Your task to perform on an android device: toggle notification dots Image 0: 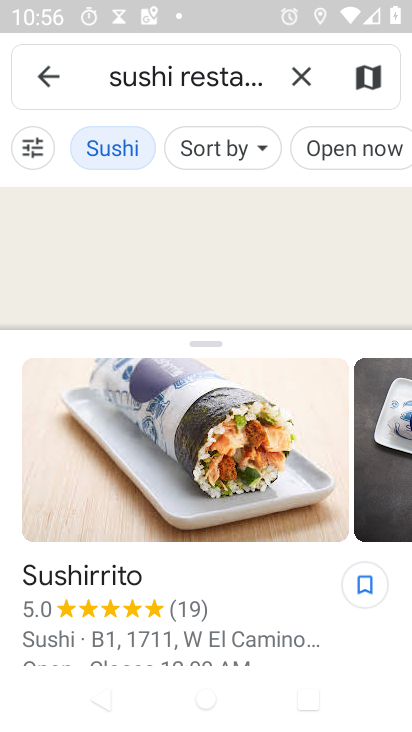
Step 0: press home button
Your task to perform on an android device: toggle notification dots Image 1: 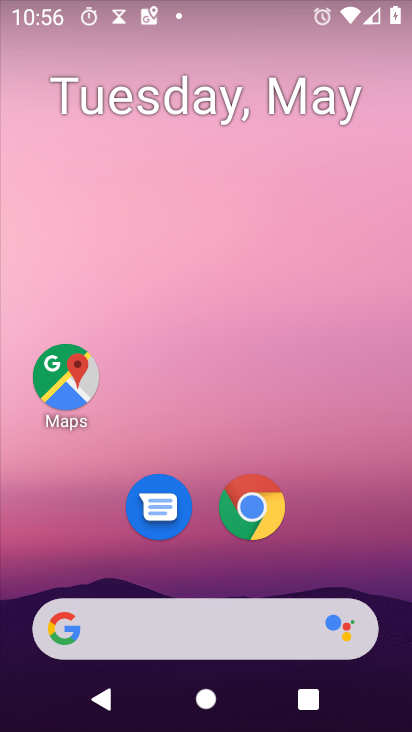
Step 1: drag from (18, 476) to (277, 193)
Your task to perform on an android device: toggle notification dots Image 2: 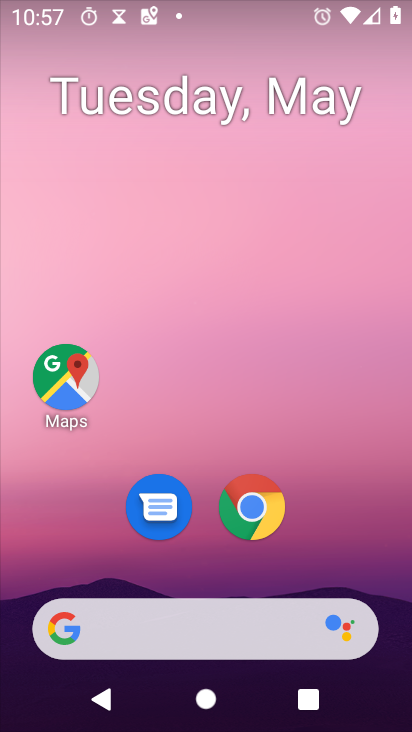
Step 2: drag from (89, 438) to (233, 145)
Your task to perform on an android device: toggle notification dots Image 3: 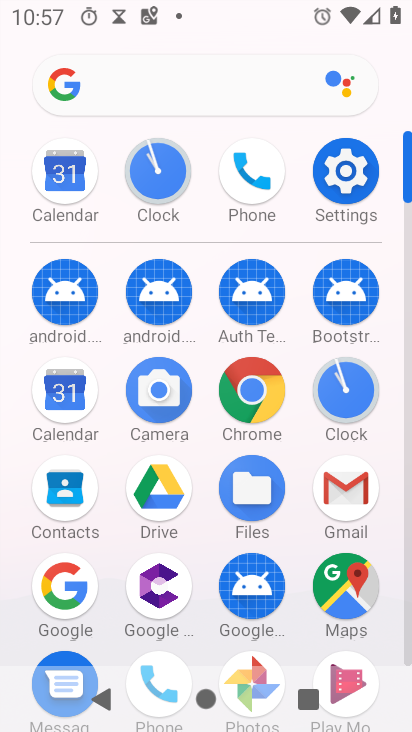
Step 3: click (333, 179)
Your task to perform on an android device: toggle notification dots Image 4: 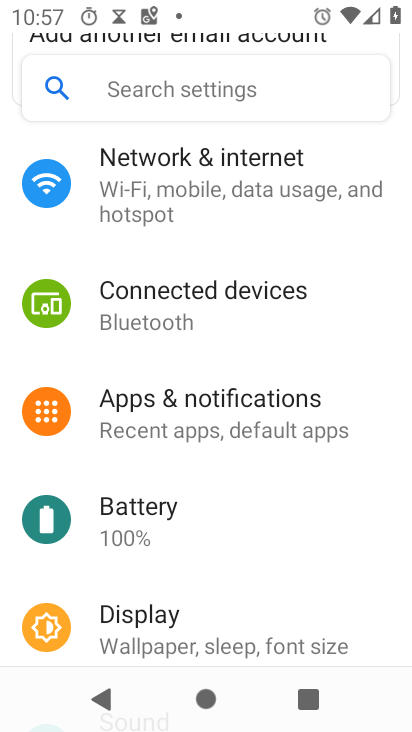
Step 4: click (180, 423)
Your task to perform on an android device: toggle notification dots Image 5: 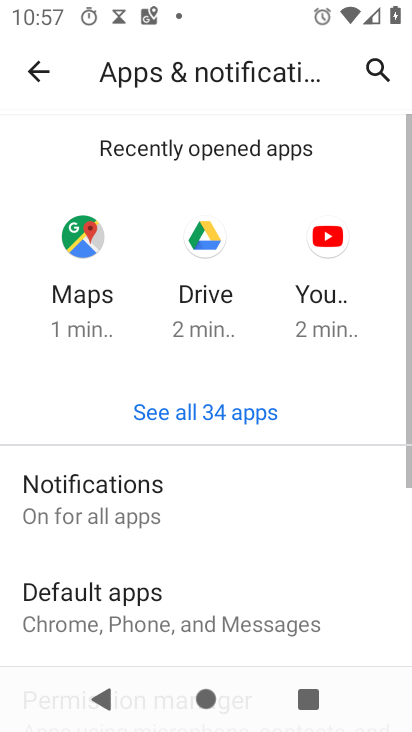
Step 5: click (43, 525)
Your task to perform on an android device: toggle notification dots Image 6: 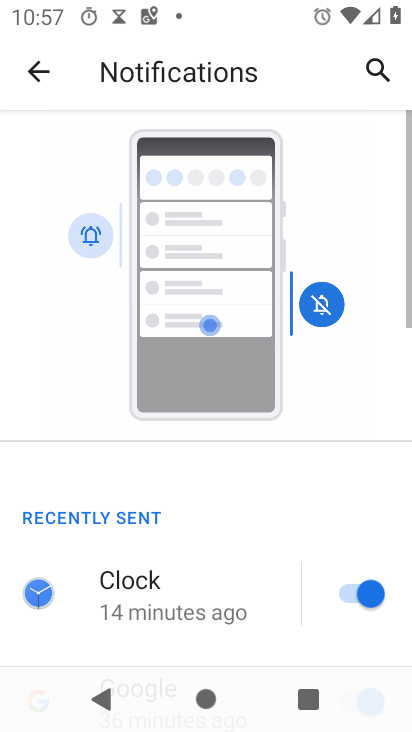
Step 6: drag from (42, 452) to (268, 101)
Your task to perform on an android device: toggle notification dots Image 7: 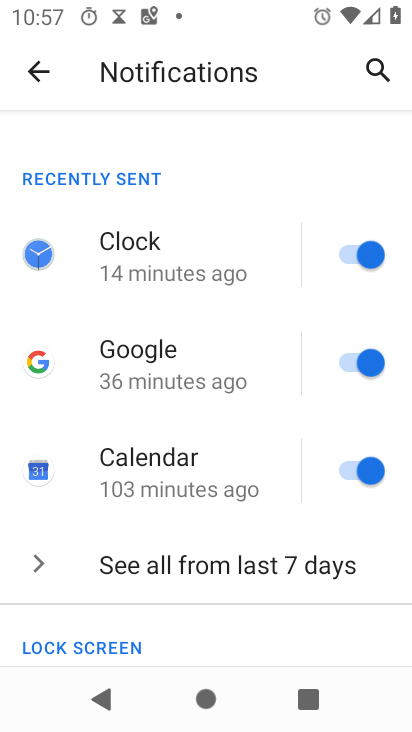
Step 7: drag from (13, 518) to (314, 126)
Your task to perform on an android device: toggle notification dots Image 8: 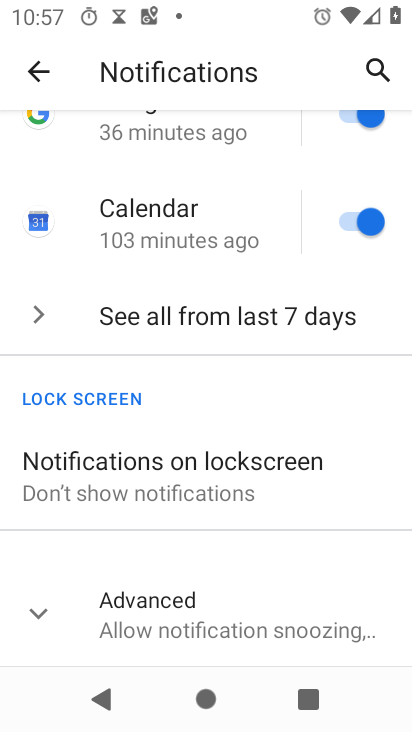
Step 8: click (188, 603)
Your task to perform on an android device: toggle notification dots Image 9: 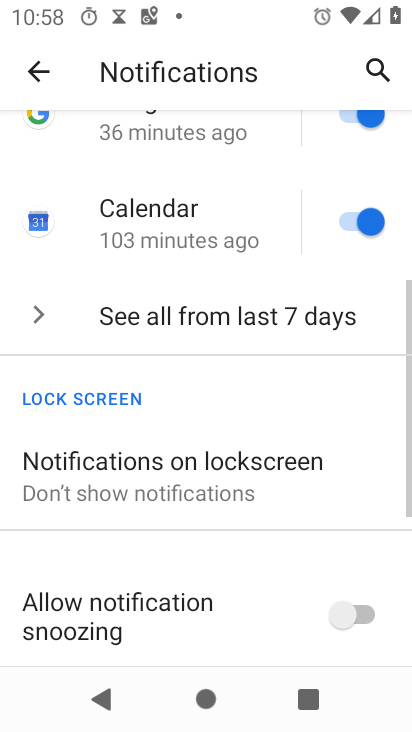
Step 9: drag from (13, 554) to (287, 181)
Your task to perform on an android device: toggle notification dots Image 10: 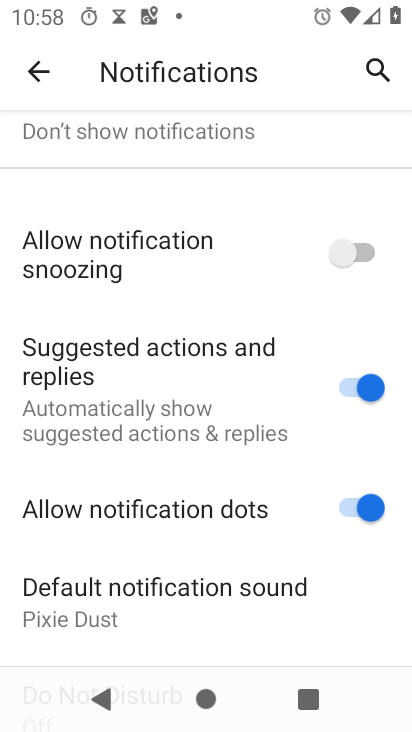
Step 10: click (377, 496)
Your task to perform on an android device: toggle notification dots Image 11: 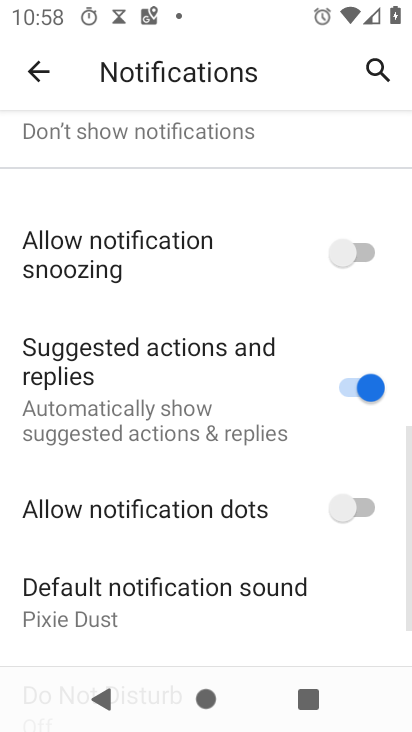
Step 11: task complete